Your task to perform on an android device: turn on improve location accuracy Image 0: 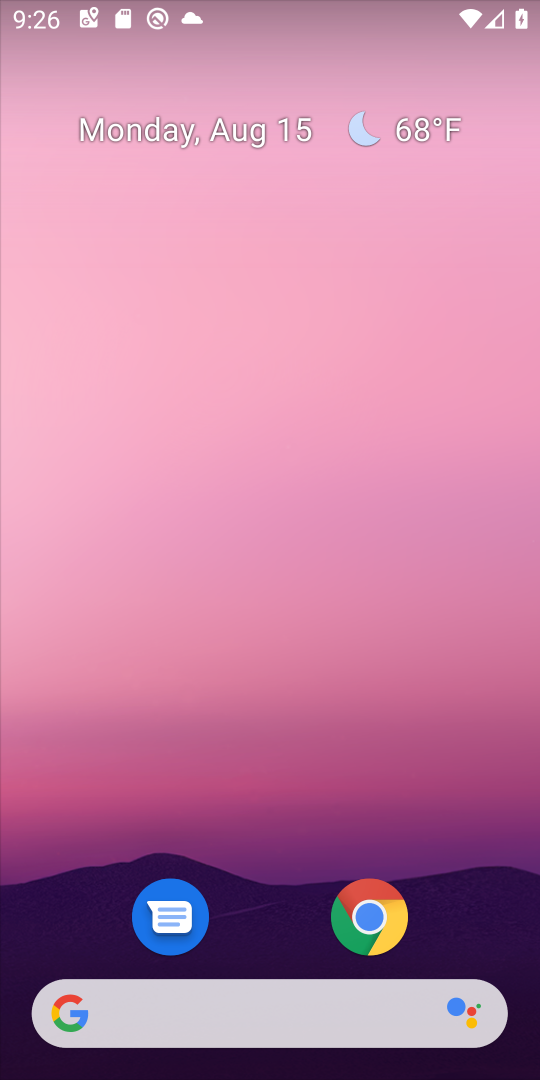
Step 0: drag from (305, 866) to (291, 7)
Your task to perform on an android device: turn on improve location accuracy Image 1: 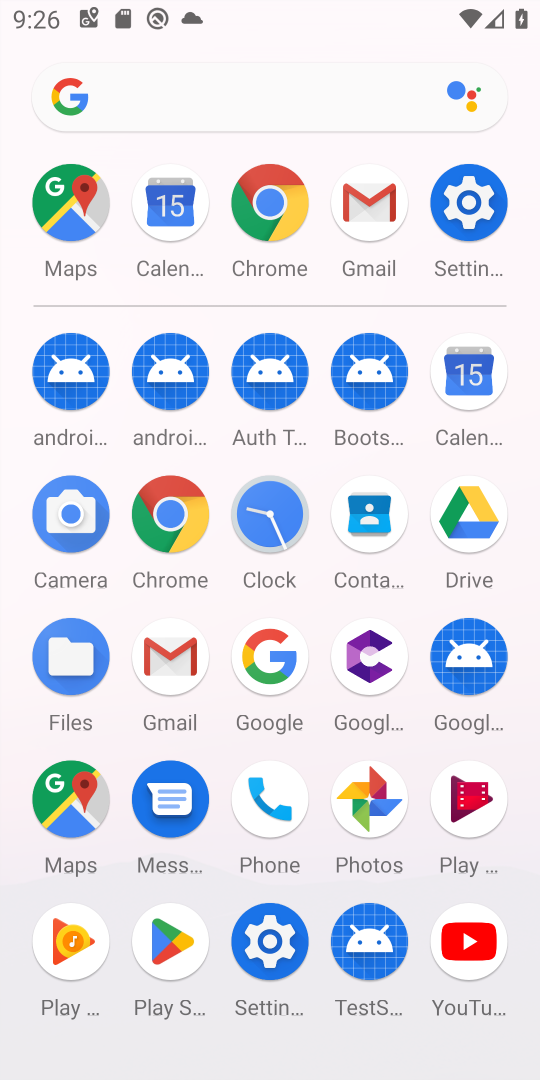
Step 1: drag from (277, 163) to (287, 0)
Your task to perform on an android device: turn on improve location accuracy Image 2: 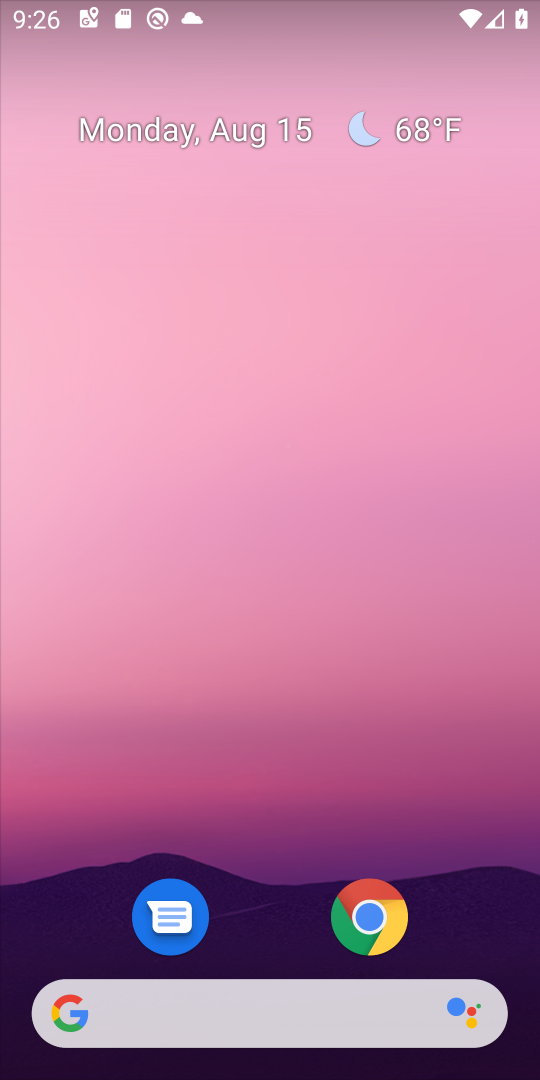
Step 2: drag from (295, 802) to (333, 0)
Your task to perform on an android device: turn on improve location accuracy Image 3: 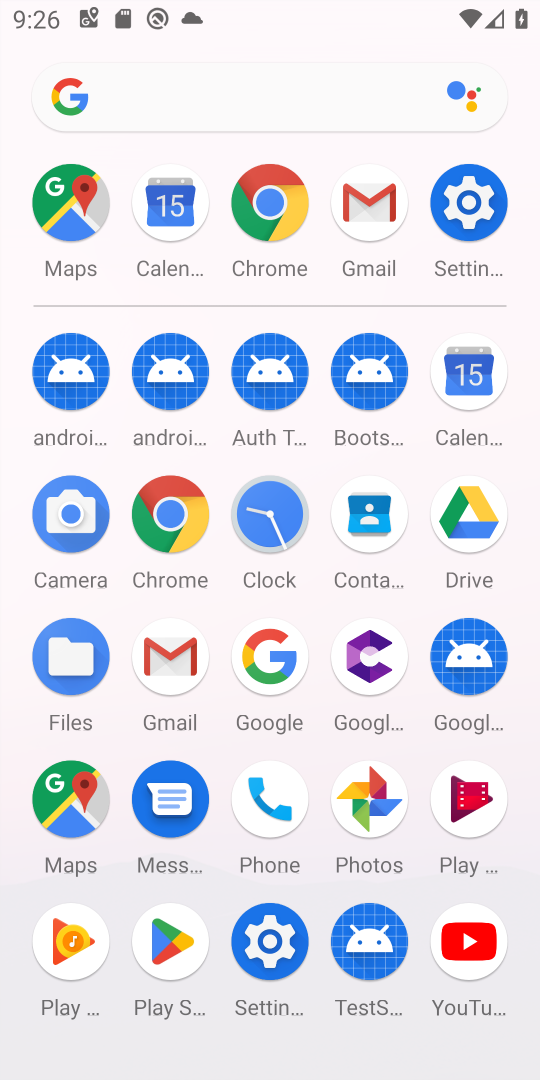
Step 3: click (463, 198)
Your task to perform on an android device: turn on improve location accuracy Image 4: 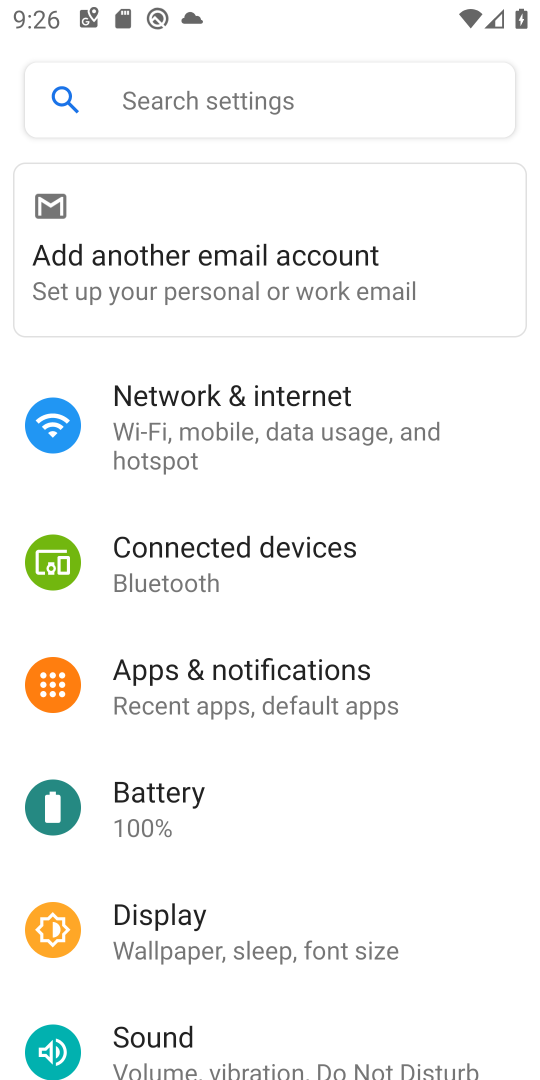
Step 4: drag from (270, 867) to (336, 1)
Your task to perform on an android device: turn on improve location accuracy Image 5: 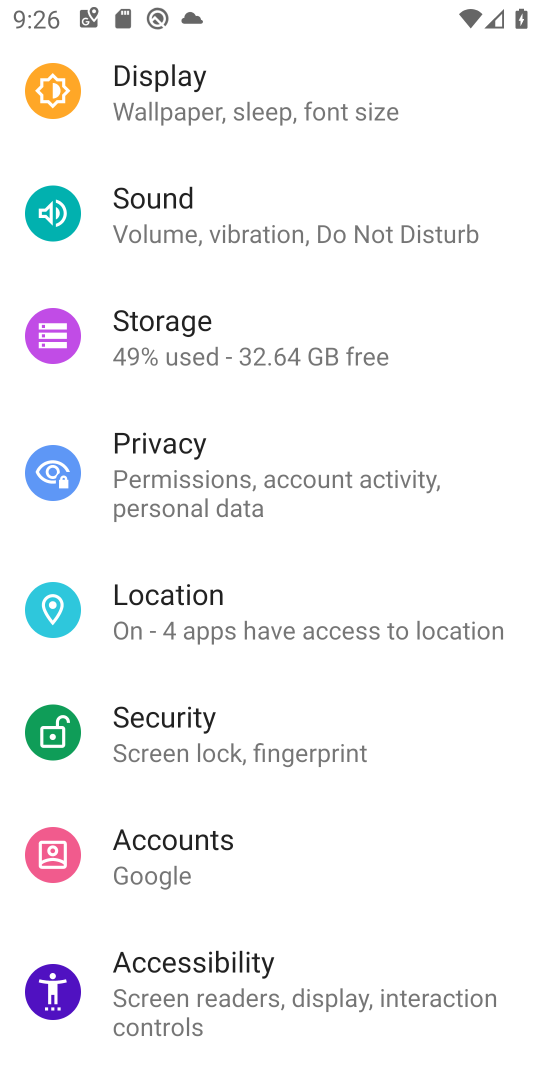
Step 5: click (241, 624)
Your task to perform on an android device: turn on improve location accuracy Image 6: 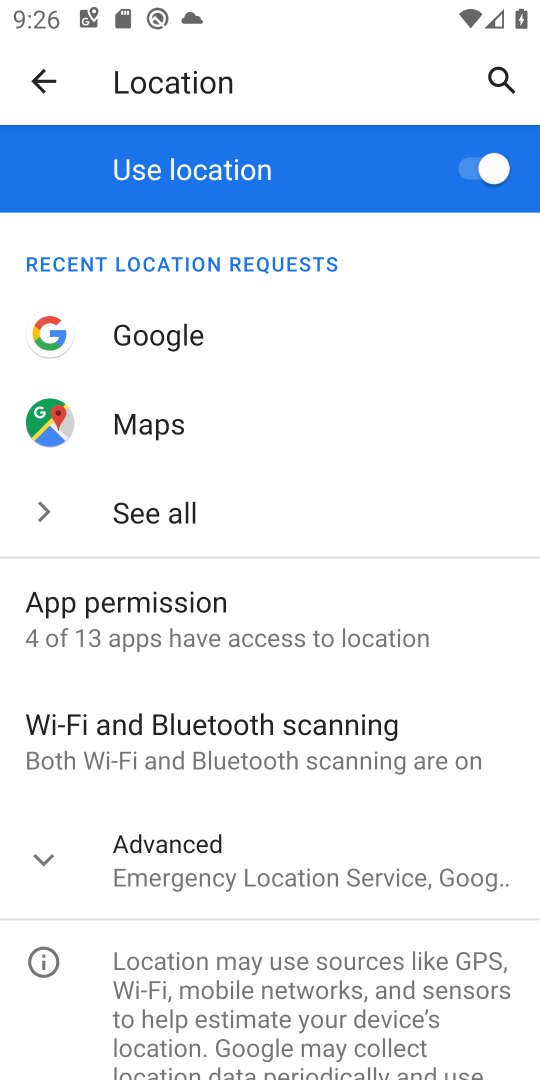
Step 6: click (46, 857)
Your task to perform on an android device: turn on improve location accuracy Image 7: 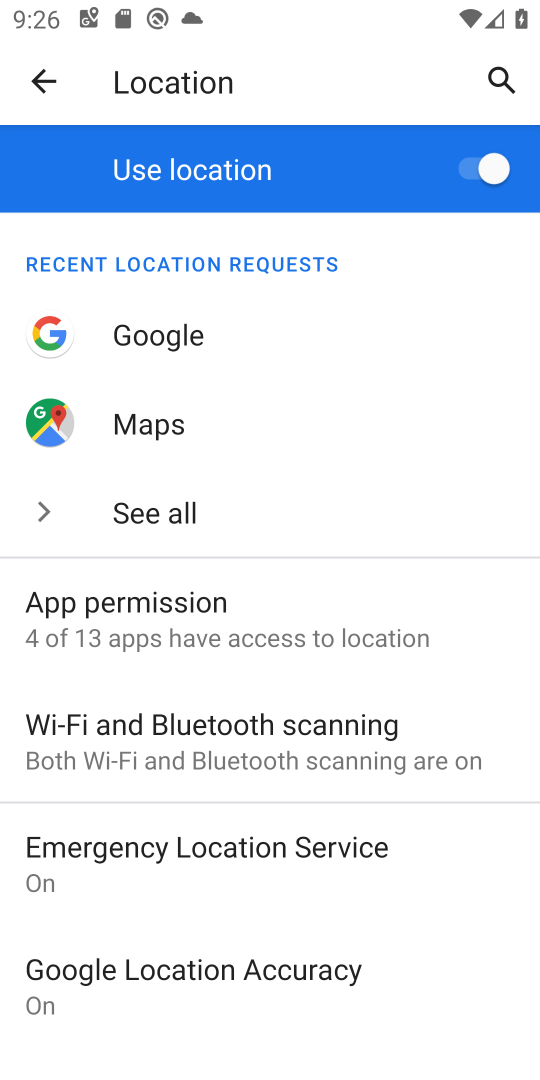
Step 7: task complete